Your task to perform on an android device: open the mobile data screen to see how much data has been used Image 0: 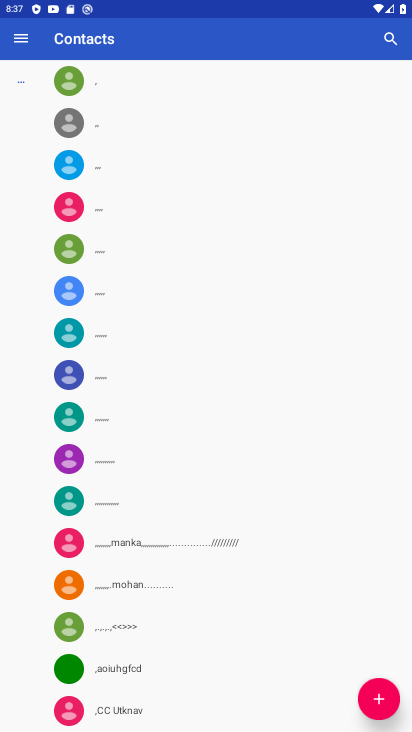
Step 0: press back button
Your task to perform on an android device: open the mobile data screen to see how much data has been used Image 1: 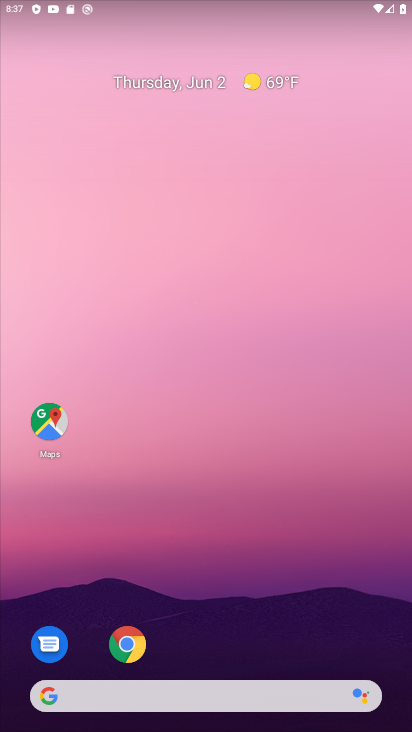
Step 1: drag from (265, 607) to (183, 40)
Your task to perform on an android device: open the mobile data screen to see how much data has been used Image 2: 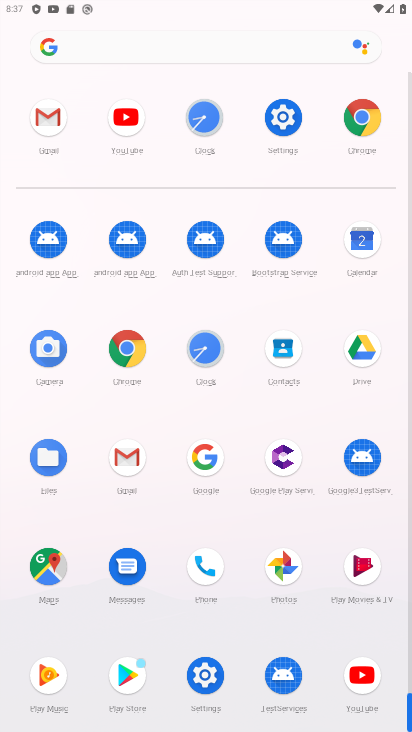
Step 2: click (201, 674)
Your task to perform on an android device: open the mobile data screen to see how much data has been used Image 3: 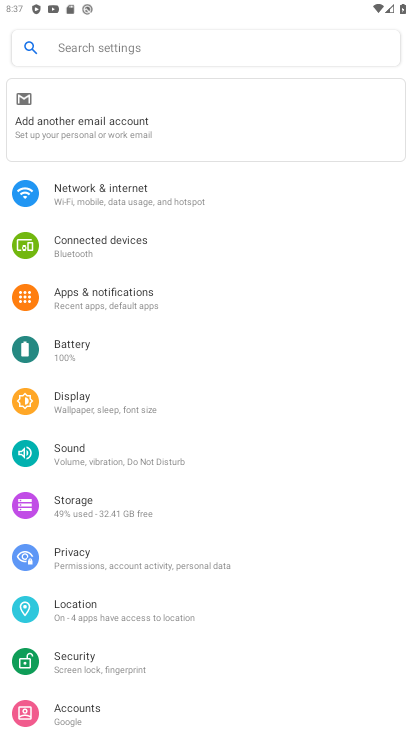
Step 3: click (150, 202)
Your task to perform on an android device: open the mobile data screen to see how much data has been used Image 4: 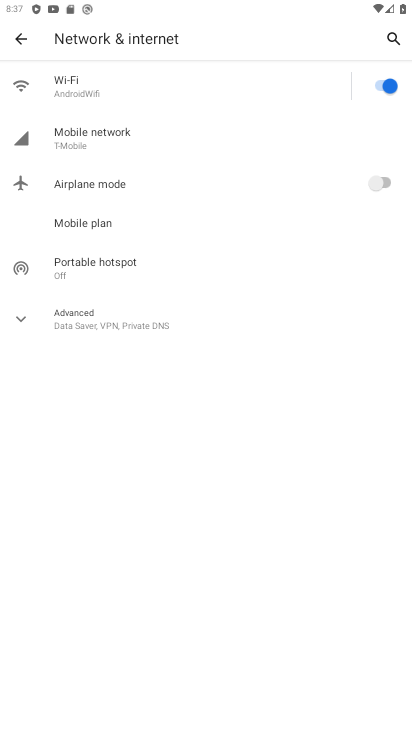
Step 4: click (105, 124)
Your task to perform on an android device: open the mobile data screen to see how much data has been used Image 5: 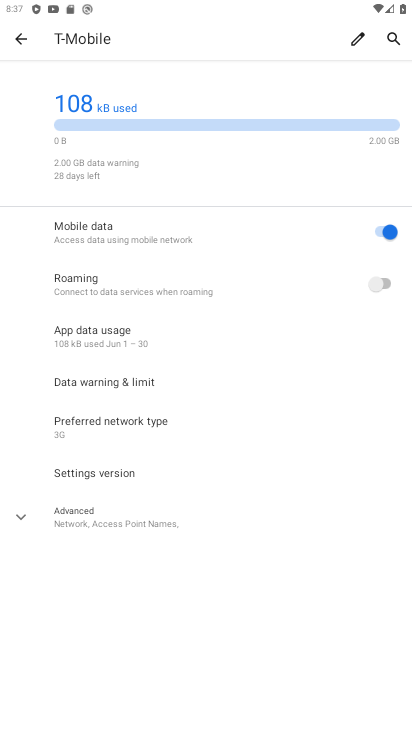
Step 5: click (20, 521)
Your task to perform on an android device: open the mobile data screen to see how much data has been used Image 6: 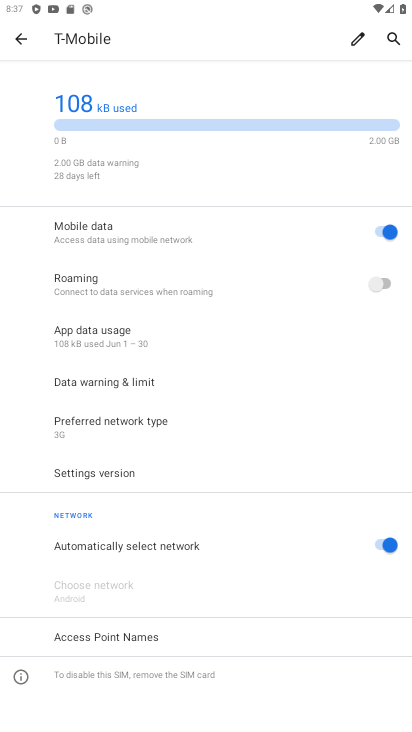
Step 6: task complete